Your task to perform on an android device: turn on showing notifications on the lock screen Image 0: 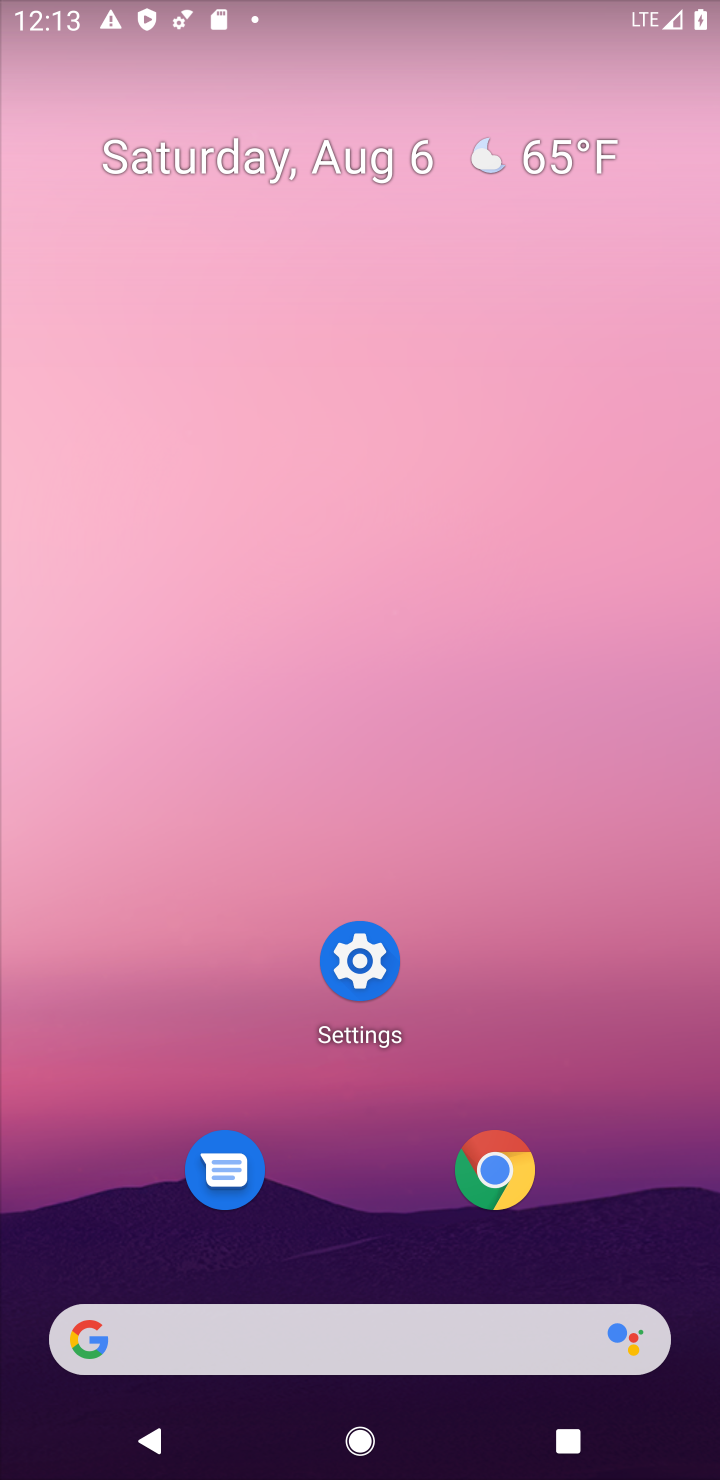
Step 0: click (350, 961)
Your task to perform on an android device: turn on showing notifications on the lock screen Image 1: 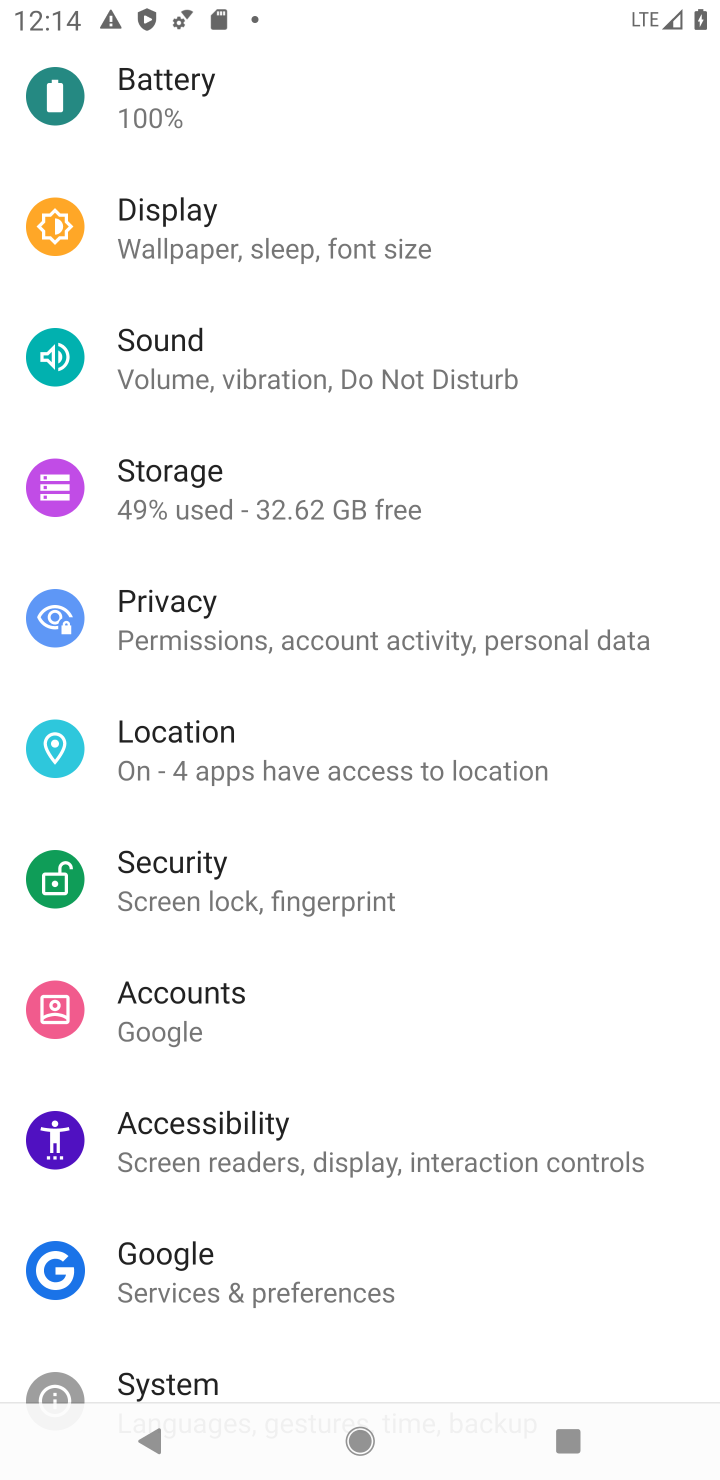
Step 1: drag from (528, 341) to (627, 1466)
Your task to perform on an android device: turn on showing notifications on the lock screen Image 2: 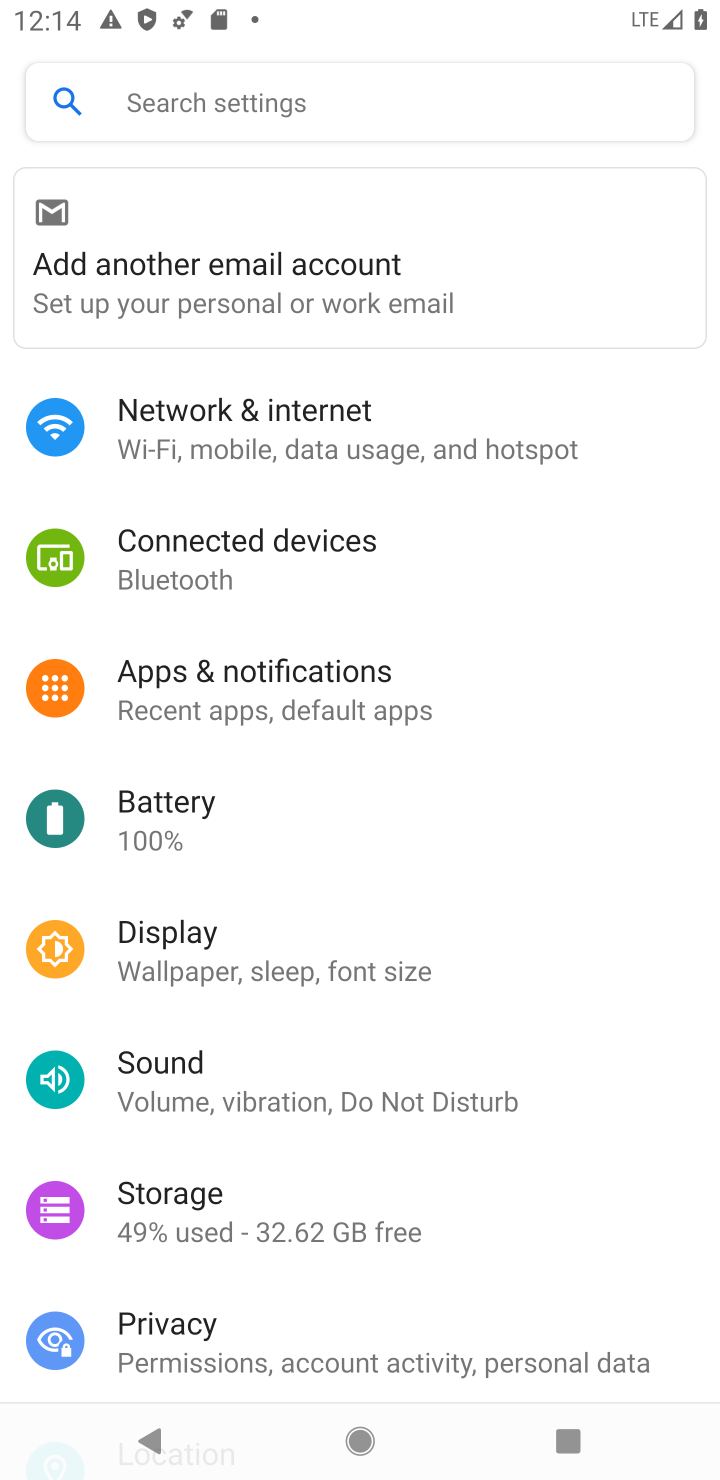
Step 2: click (272, 676)
Your task to perform on an android device: turn on showing notifications on the lock screen Image 3: 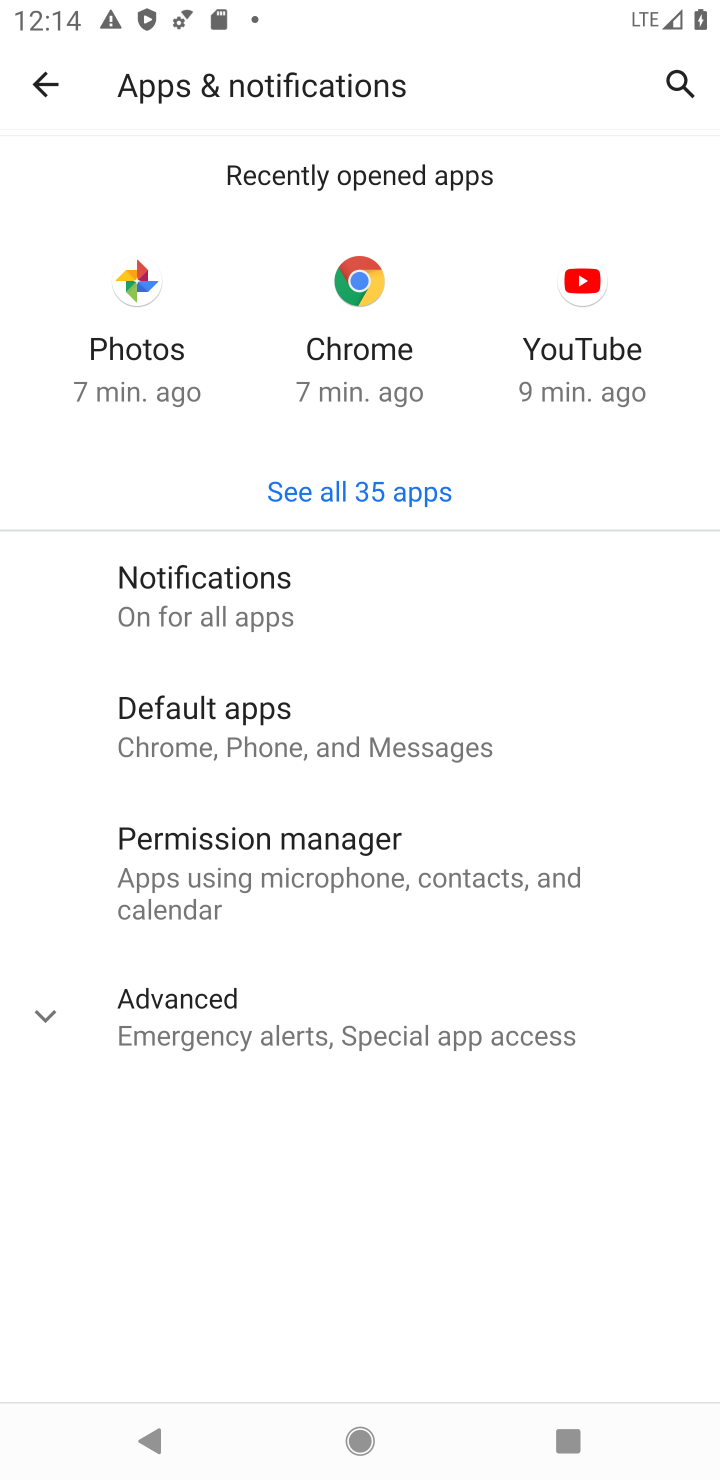
Step 3: click (245, 615)
Your task to perform on an android device: turn on showing notifications on the lock screen Image 4: 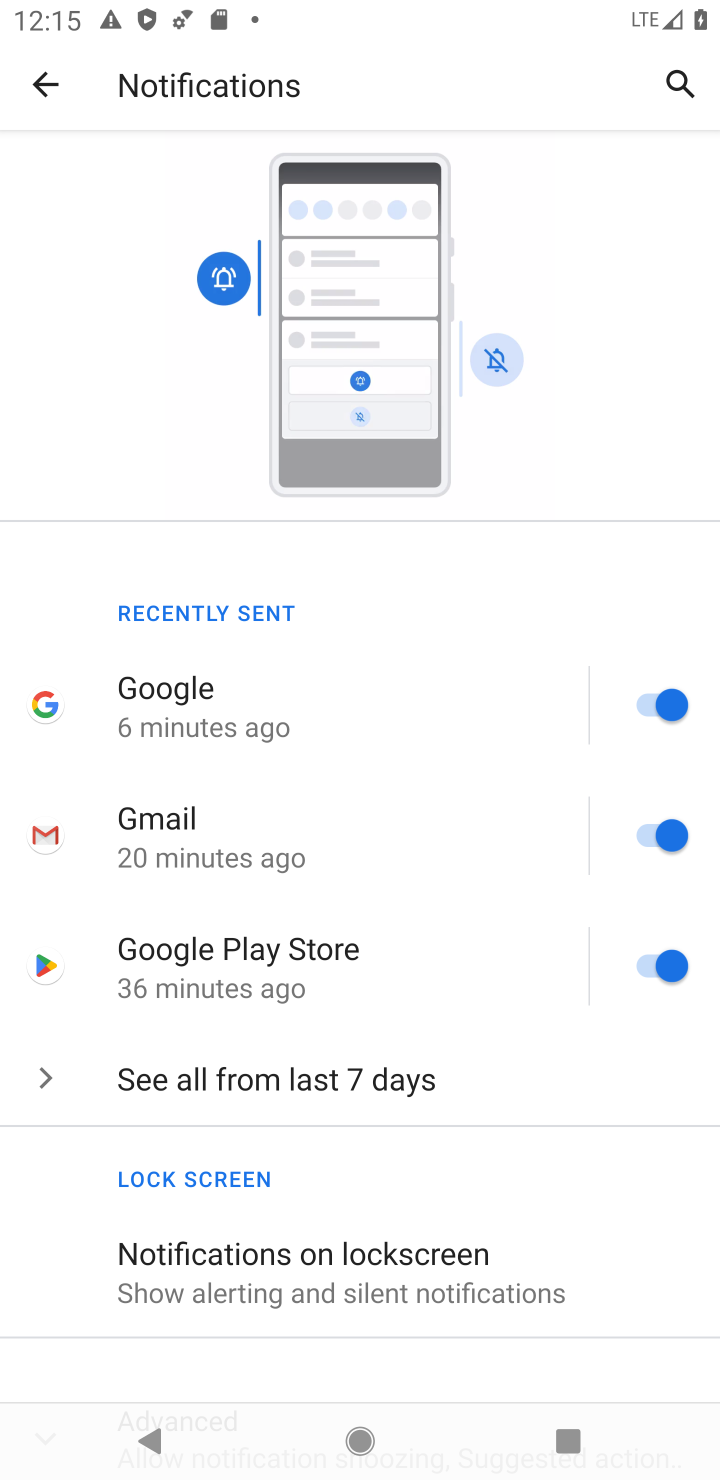
Step 4: click (333, 1285)
Your task to perform on an android device: turn on showing notifications on the lock screen Image 5: 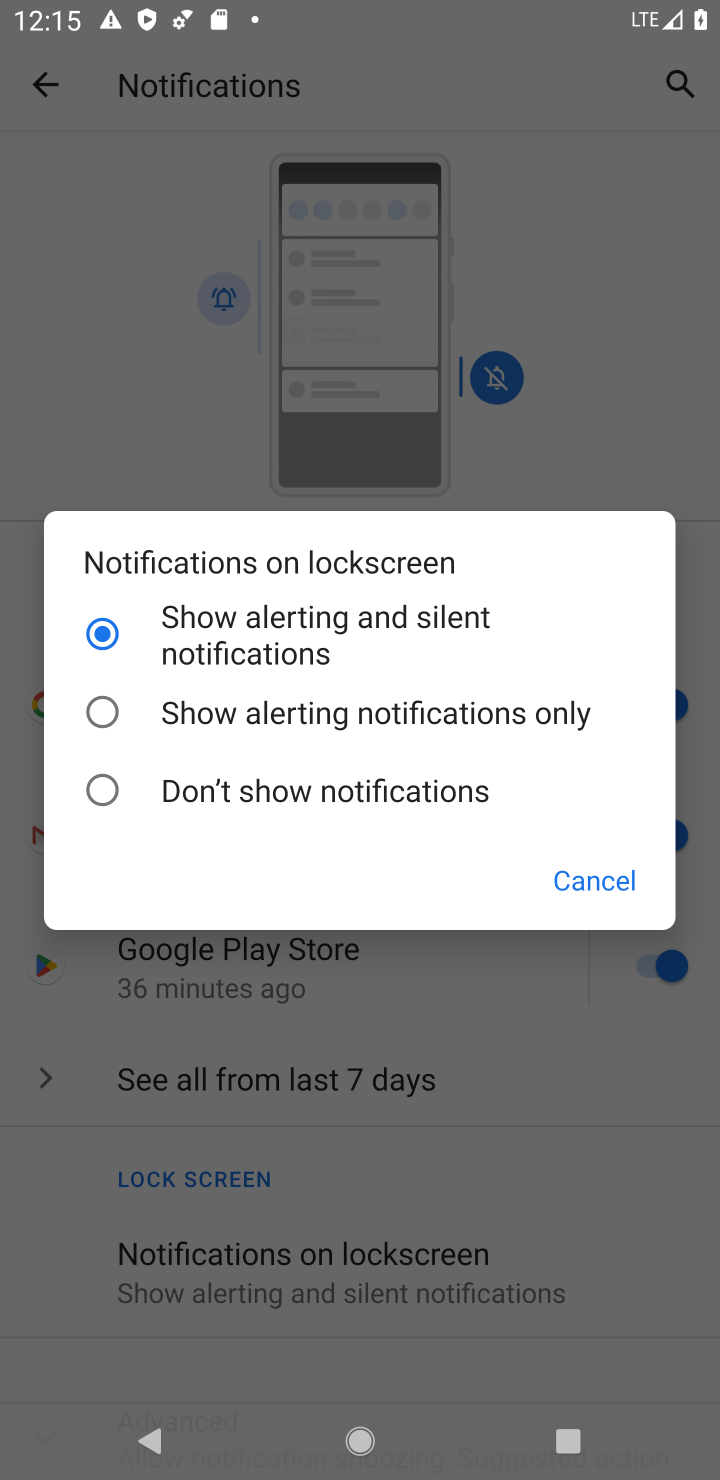
Step 5: click (598, 881)
Your task to perform on an android device: turn on showing notifications on the lock screen Image 6: 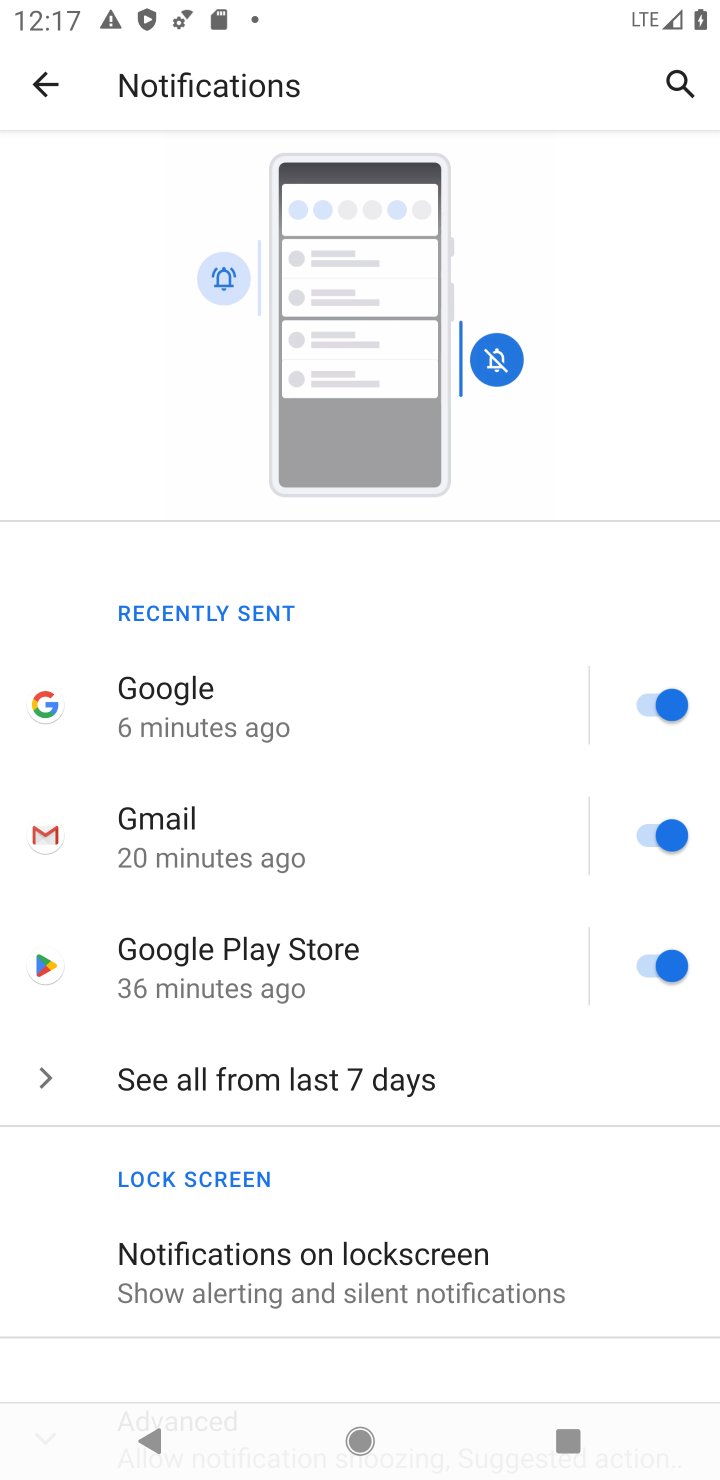
Step 6: task complete